Your task to perform on an android device: Show me productivity apps on the Play Store Image 0: 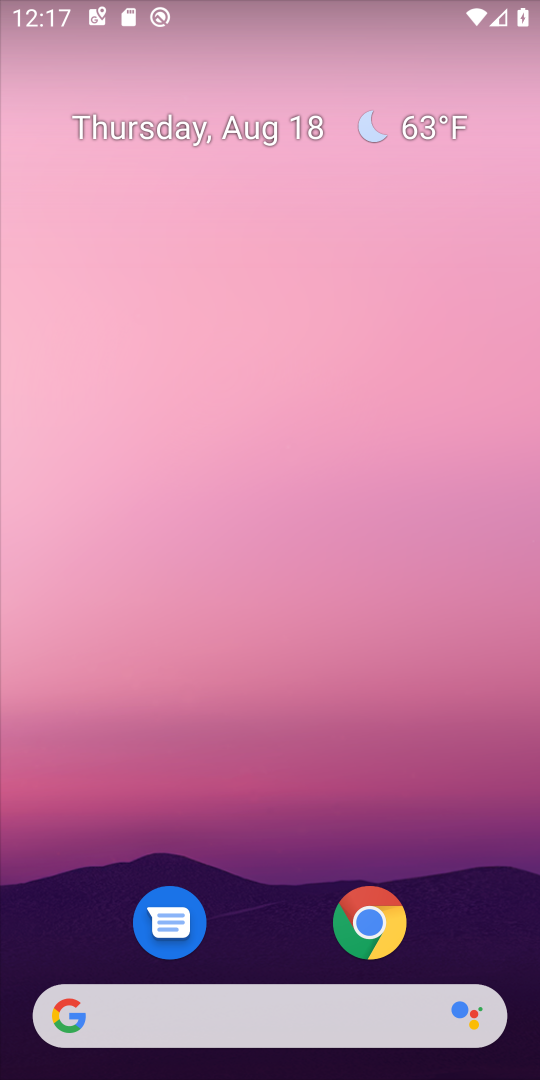
Step 0: drag from (266, 886) to (218, 305)
Your task to perform on an android device: Show me productivity apps on the Play Store Image 1: 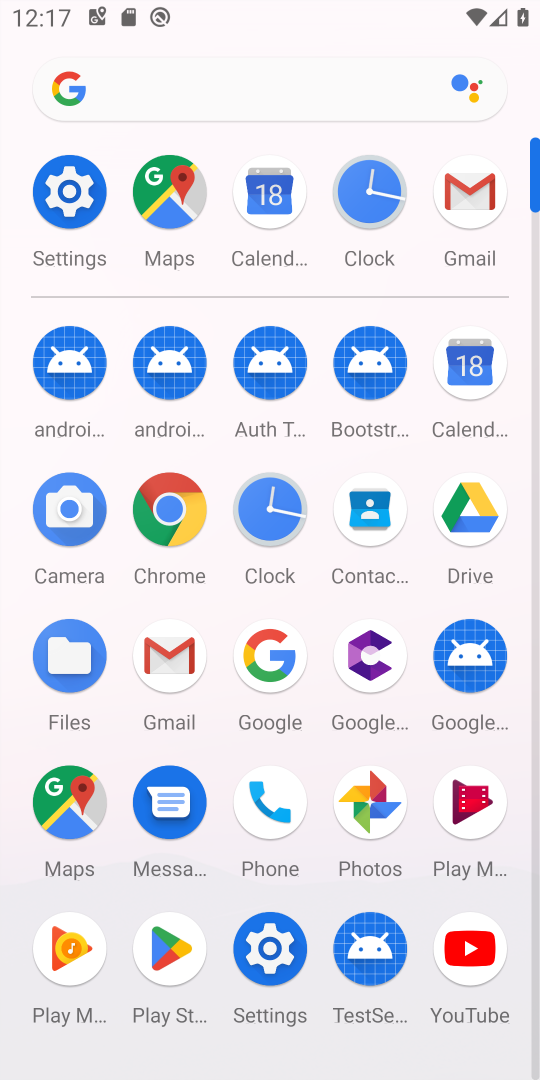
Step 1: click (170, 965)
Your task to perform on an android device: Show me productivity apps on the Play Store Image 2: 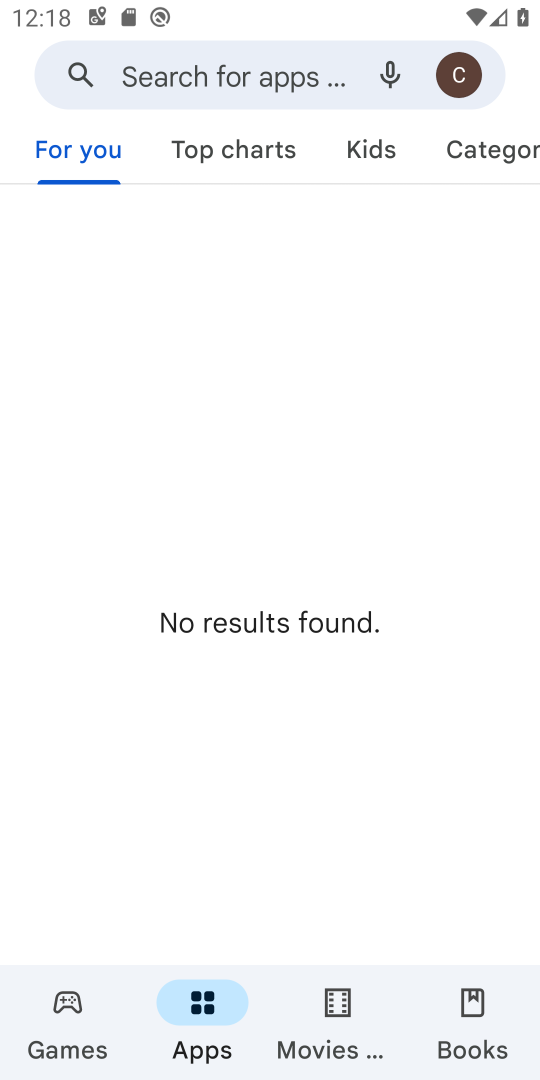
Step 2: click (59, 1024)
Your task to perform on an android device: Show me productivity apps on the Play Store Image 3: 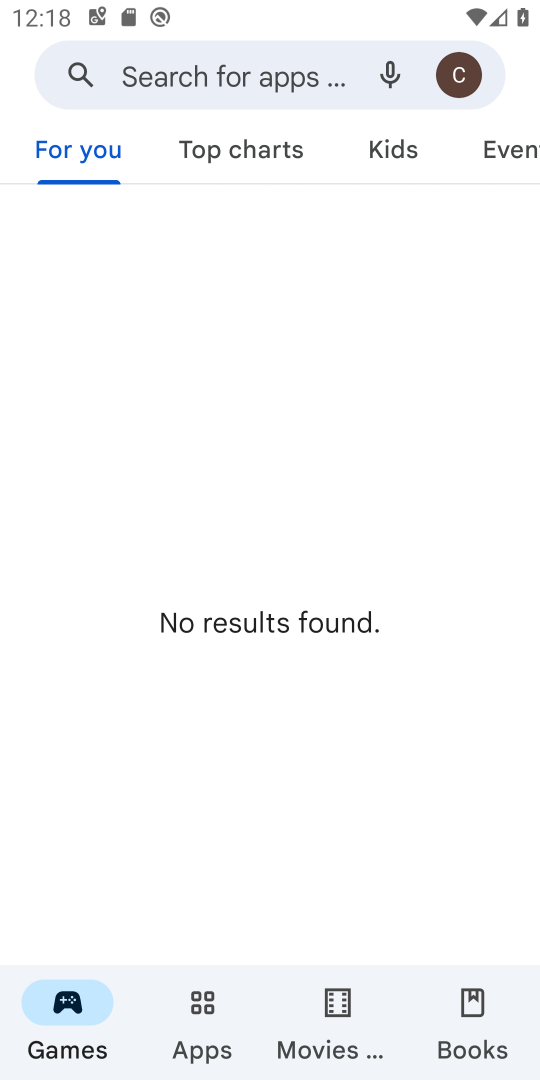
Step 3: click (212, 1008)
Your task to perform on an android device: Show me productivity apps on the Play Store Image 4: 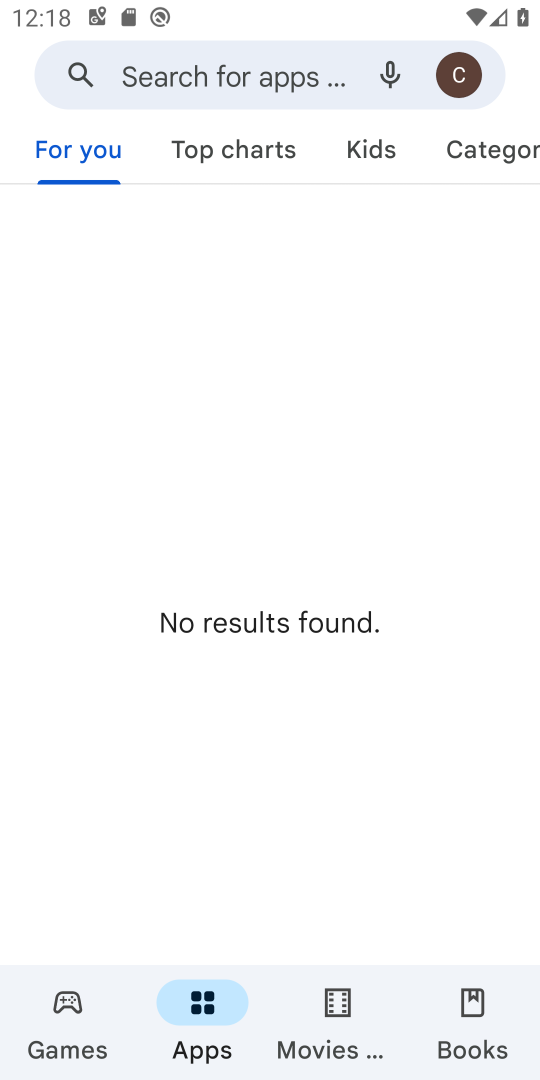
Step 4: click (303, 607)
Your task to perform on an android device: Show me productivity apps on the Play Store Image 5: 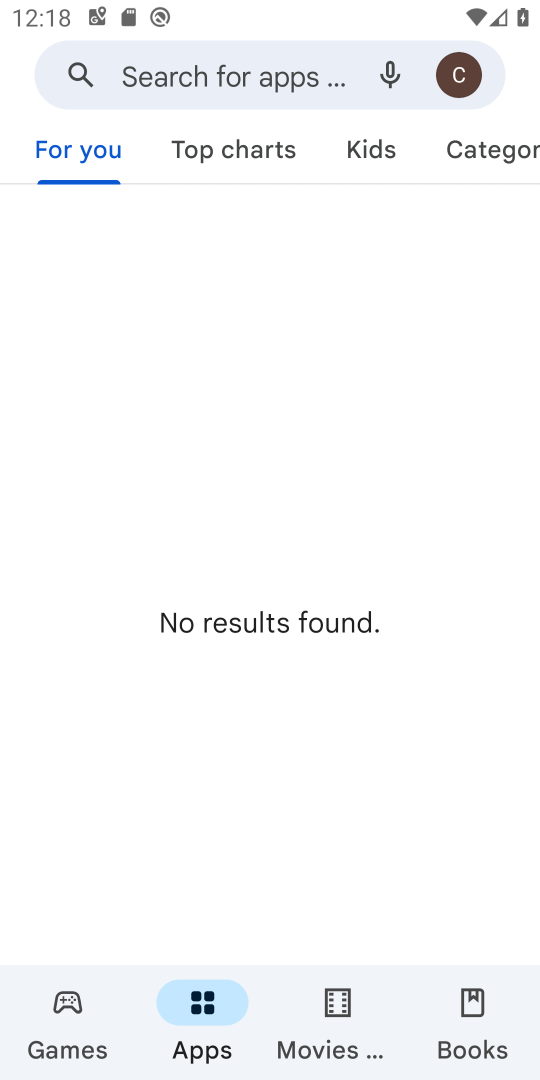
Step 5: click (204, 999)
Your task to perform on an android device: Show me productivity apps on the Play Store Image 6: 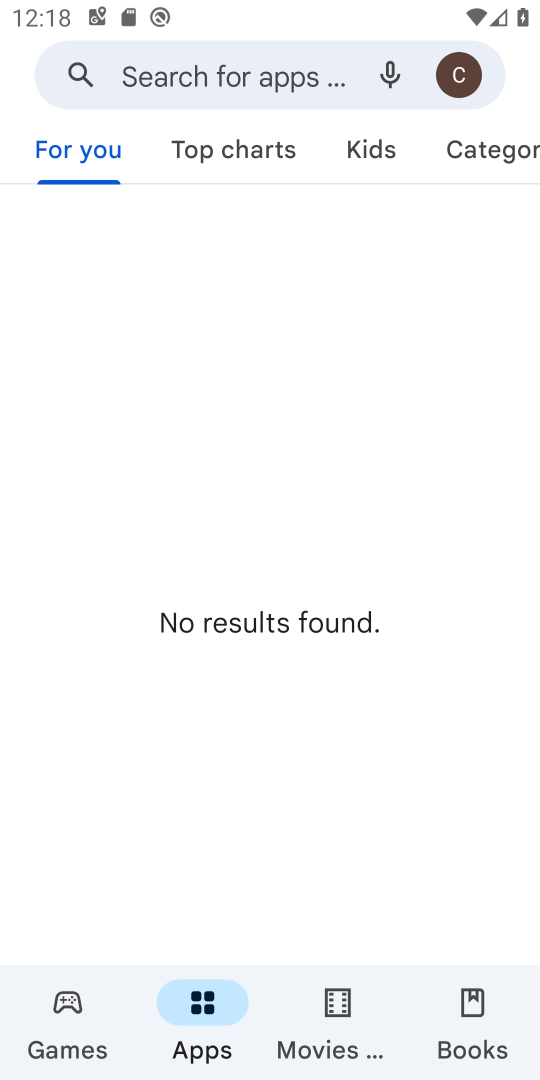
Step 6: task complete